Your task to perform on an android device: Turn off the flashlight Image 0: 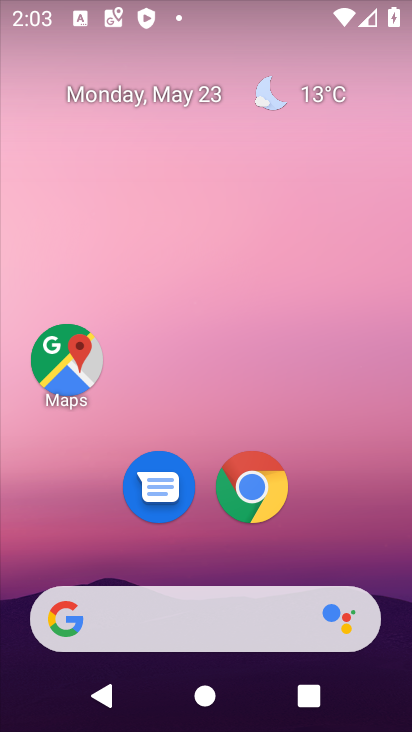
Step 0: drag from (219, 6) to (286, 438)
Your task to perform on an android device: Turn off the flashlight Image 1: 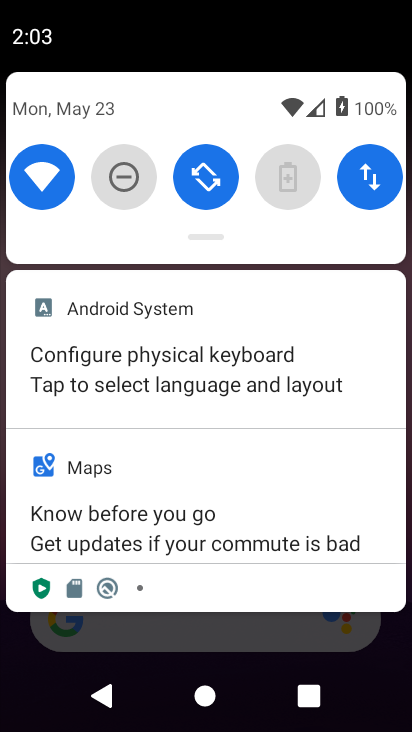
Step 1: drag from (201, 228) to (244, 557)
Your task to perform on an android device: Turn off the flashlight Image 2: 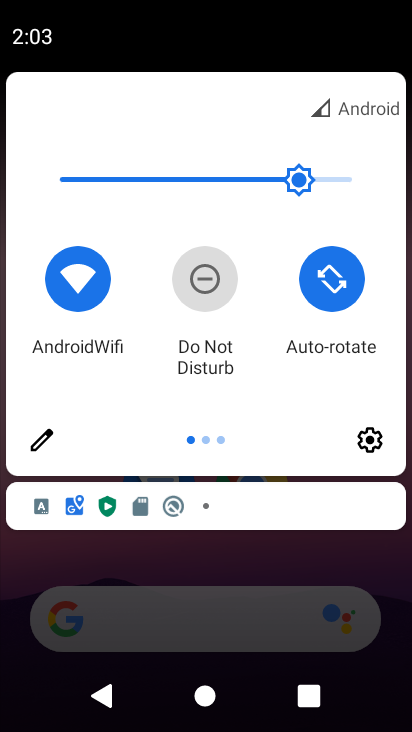
Step 2: click (36, 435)
Your task to perform on an android device: Turn off the flashlight Image 3: 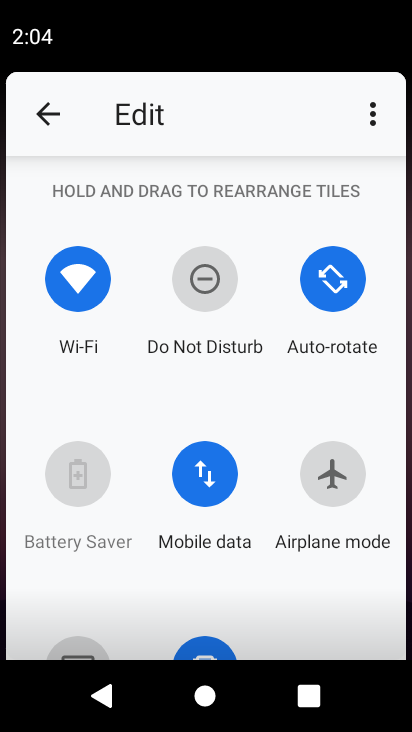
Step 3: task complete